Your task to perform on an android device: Turn off the flashlight Image 0: 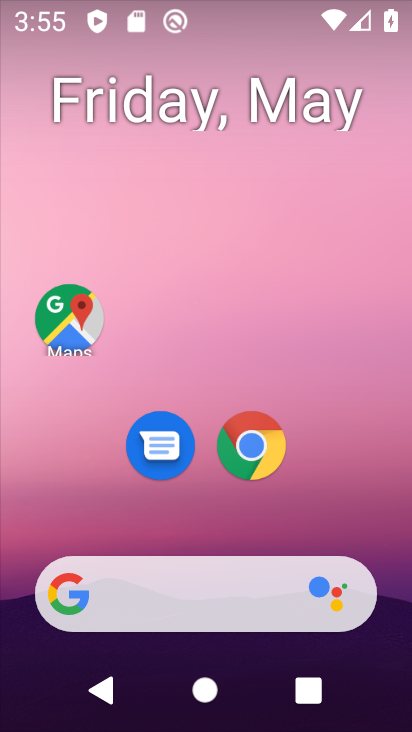
Step 0: drag from (168, 514) to (262, 79)
Your task to perform on an android device: Turn off the flashlight Image 1: 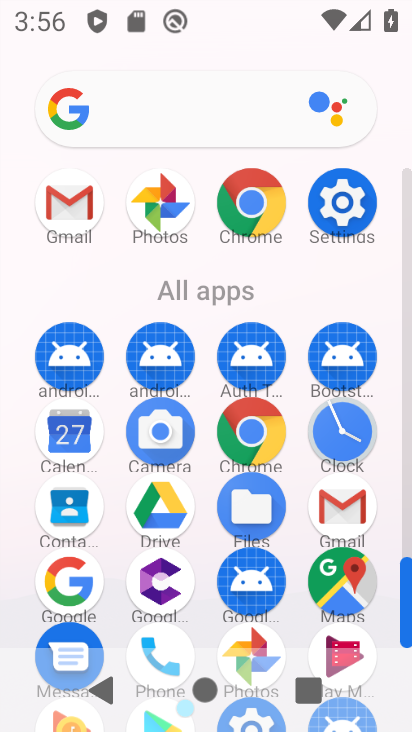
Step 1: click (335, 190)
Your task to perform on an android device: Turn off the flashlight Image 2: 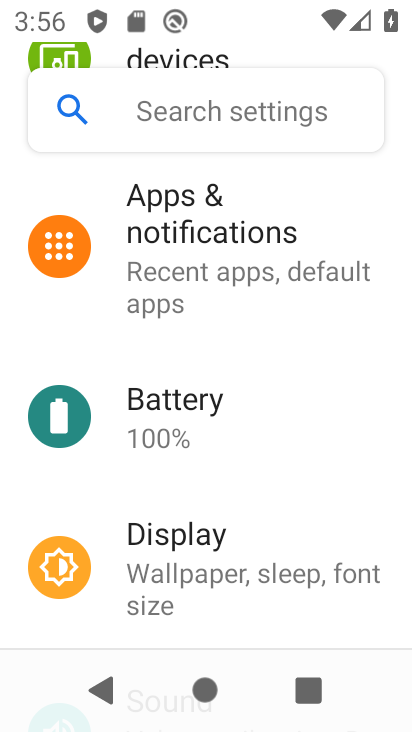
Step 2: click (211, 118)
Your task to perform on an android device: Turn off the flashlight Image 3: 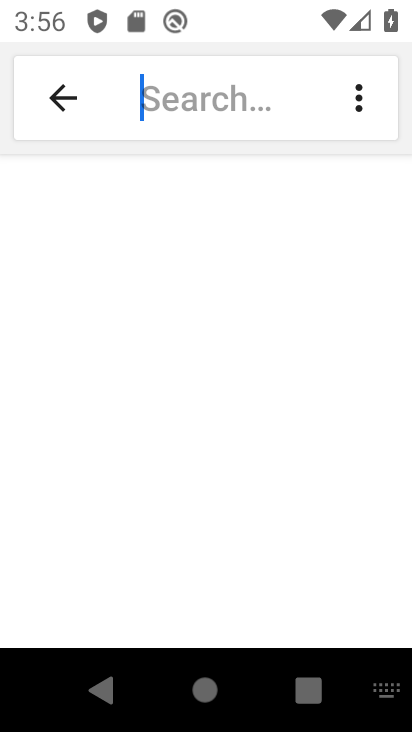
Step 3: type "flashlight"
Your task to perform on an android device: Turn off the flashlight Image 4: 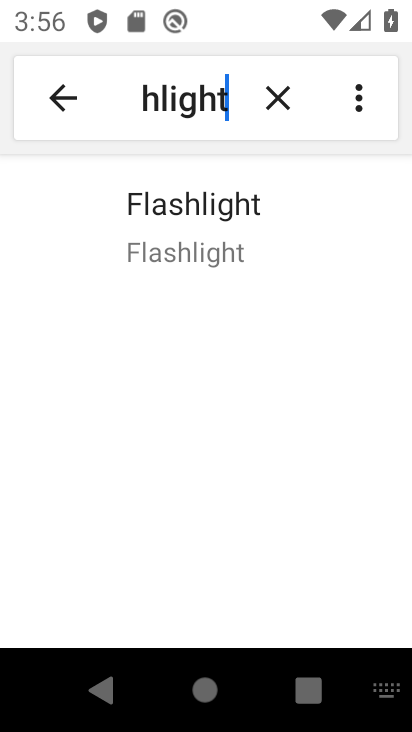
Step 4: click (202, 175)
Your task to perform on an android device: Turn off the flashlight Image 5: 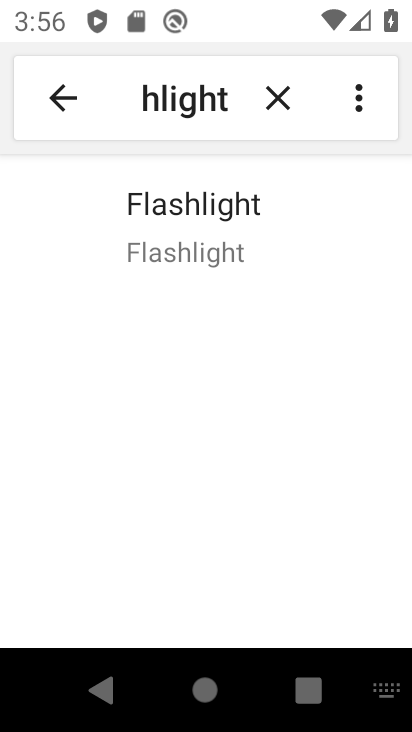
Step 5: task complete